Your task to perform on an android device: See recent photos Image 0: 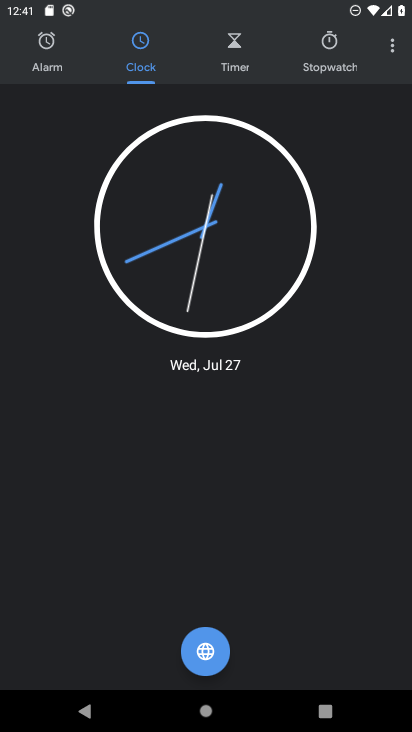
Step 0: press home button
Your task to perform on an android device: See recent photos Image 1: 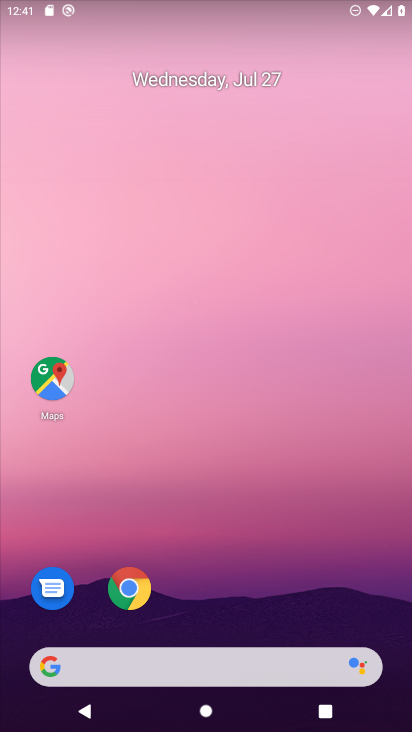
Step 1: drag from (66, 694) to (199, 95)
Your task to perform on an android device: See recent photos Image 2: 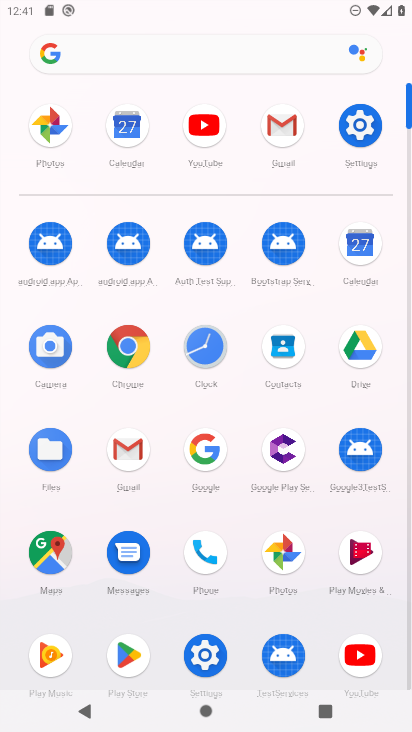
Step 2: click (302, 566)
Your task to perform on an android device: See recent photos Image 3: 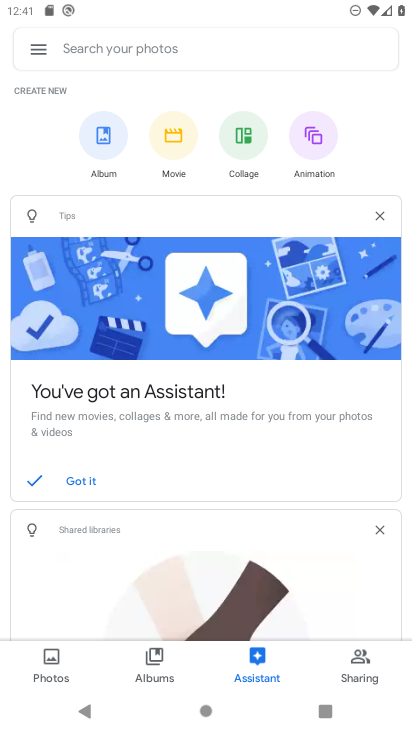
Step 3: click (29, 672)
Your task to perform on an android device: See recent photos Image 4: 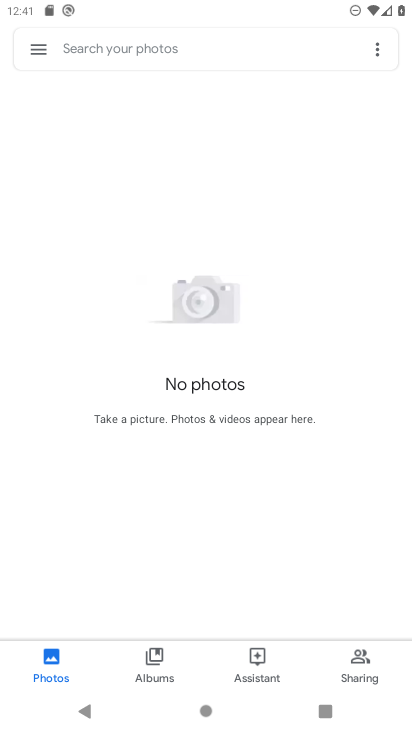
Step 4: task complete